Your task to perform on an android device: change timer sound Image 0: 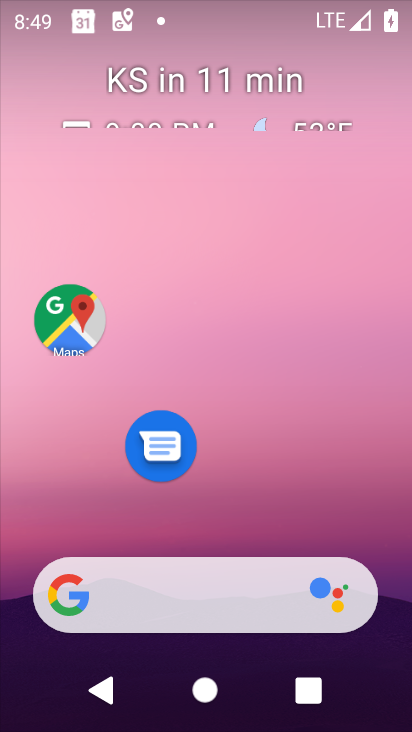
Step 0: drag from (208, 528) to (151, 36)
Your task to perform on an android device: change timer sound Image 1: 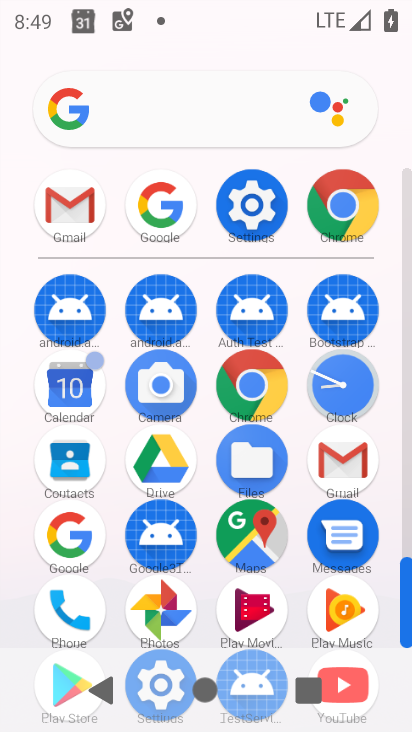
Step 1: click (340, 371)
Your task to perform on an android device: change timer sound Image 2: 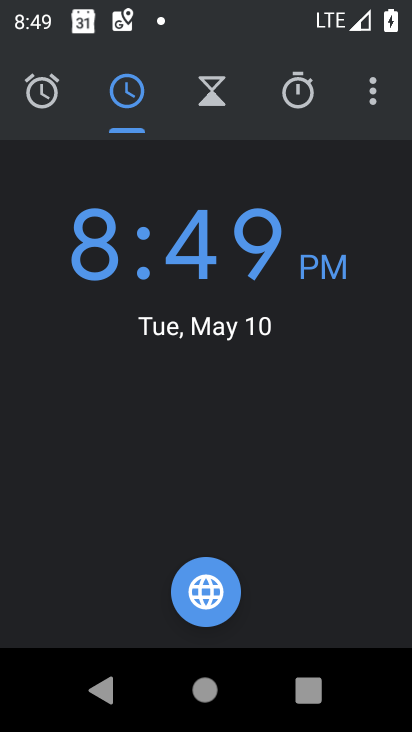
Step 2: click (370, 94)
Your task to perform on an android device: change timer sound Image 3: 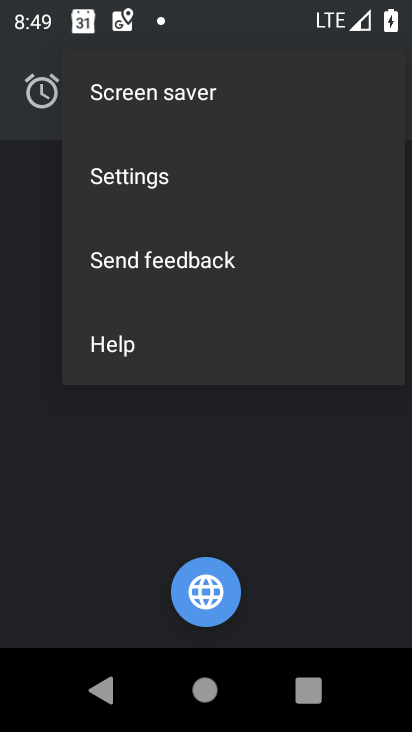
Step 3: click (136, 192)
Your task to perform on an android device: change timer sound Image 4: 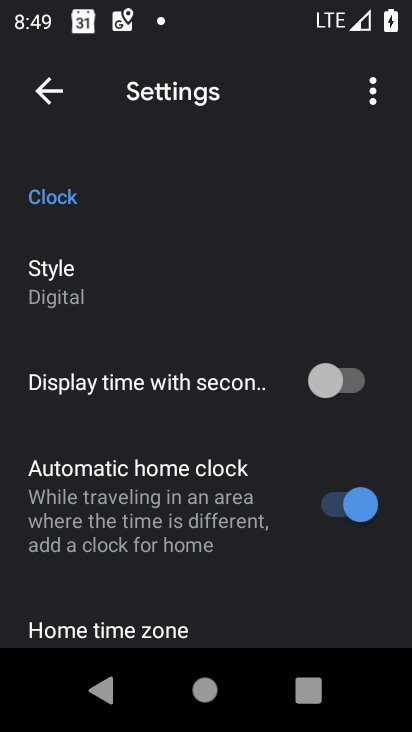
Step 4: drag from (156, 562) to (98, 8)
Your task to perform on an android device: change timer sound Image 5: 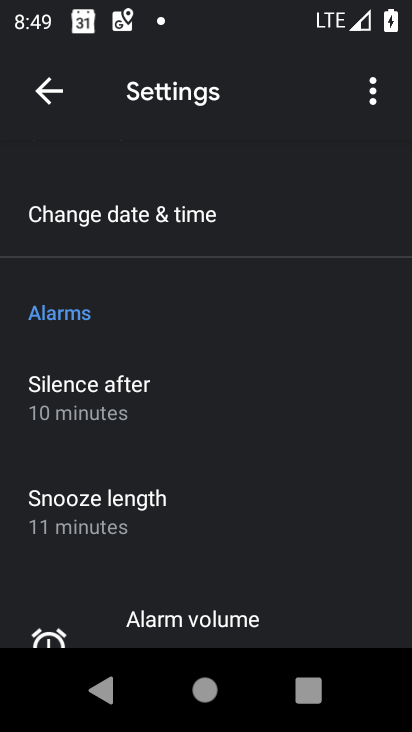
Step 5: drag from (132, 485) to (84, 62)
Your task to perform on an android device: change timer sound Image 6: 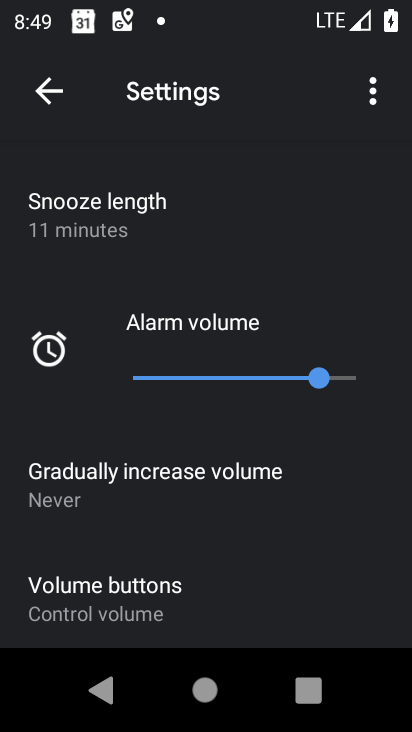
Step 6: drag from (156, 524) to (133, 143)
Your task to perform on an android device: change timer sound Image 7: 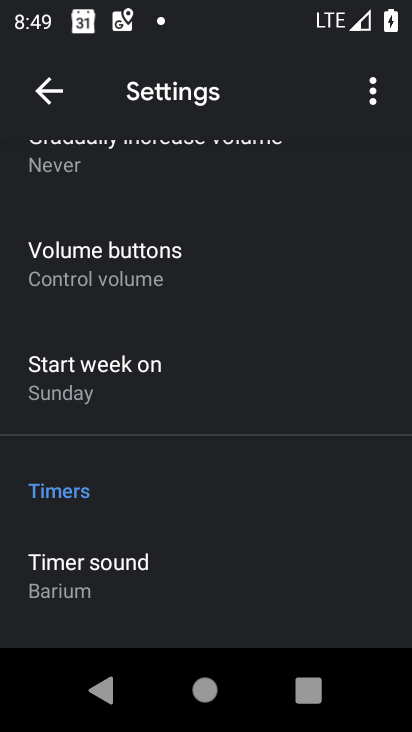
Step 7: click (105, 588)
Your task to perform on an android device: change timer sound Image 8: 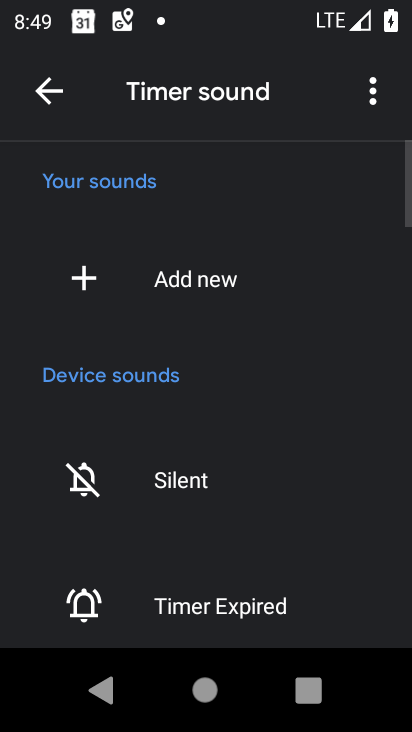
Step 8: click (158, 628)
Your task to perform on an android device: change timer sound Image 9: 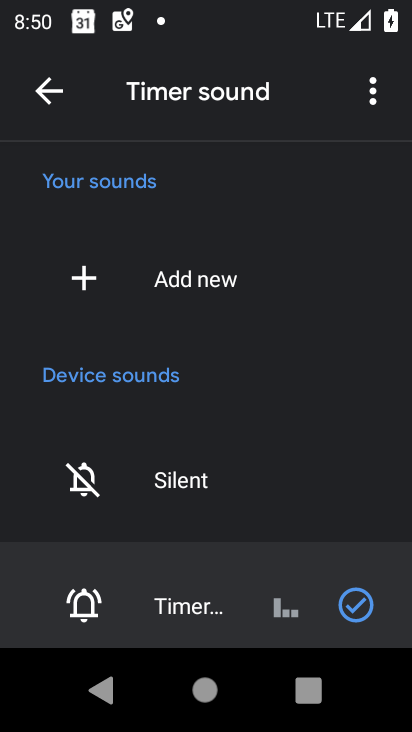
Step 9: task complete